Your task to perform on an android device: open a new tab in the chrome app Image 0: 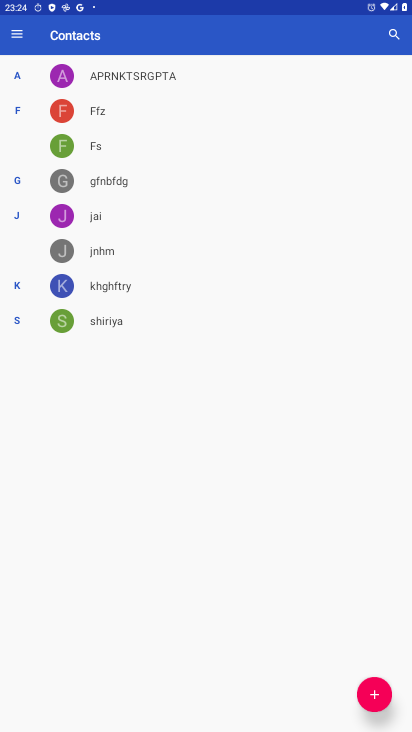
Step 0: press home button
Your task to perform on an android device: open a new tab in the chrome app Image 1: 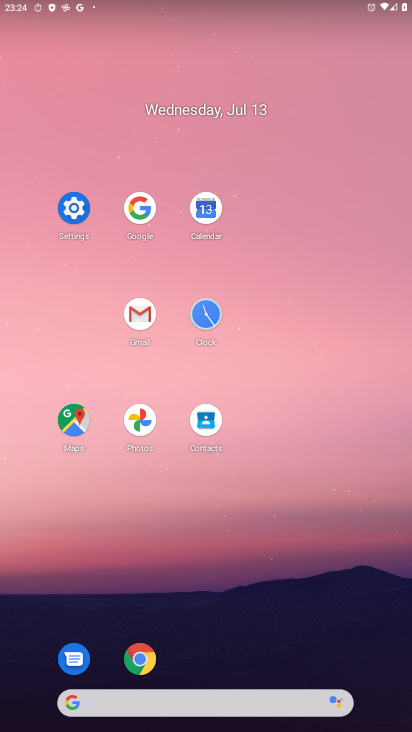
Step 1: click (126, 661)
Your task to perform on an android device: open a new tab in the chrome app Image 2: 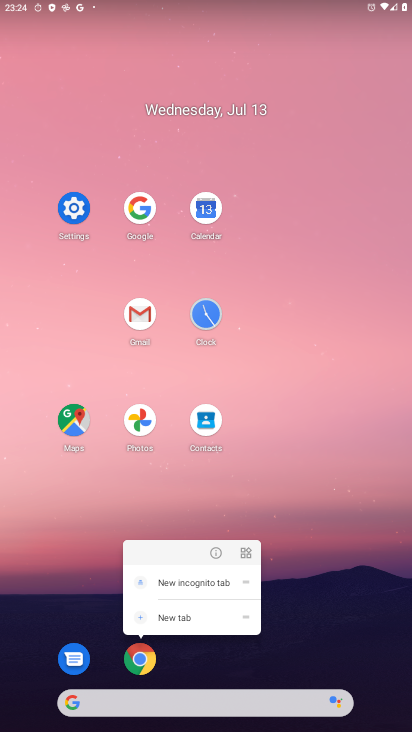
Step 2: click (144, 656)
Your task to perform on an android device: open a new tab in the chrome app Image 3: 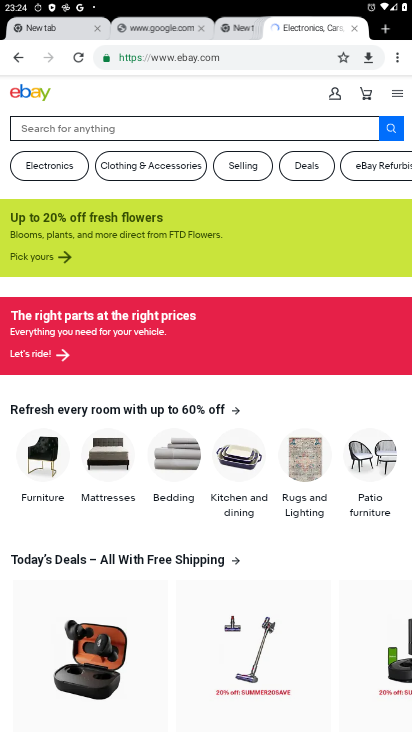
Step 3: click (382, 32)
Your task to perform on an android device: open a new tab in the chrome app Image 4: 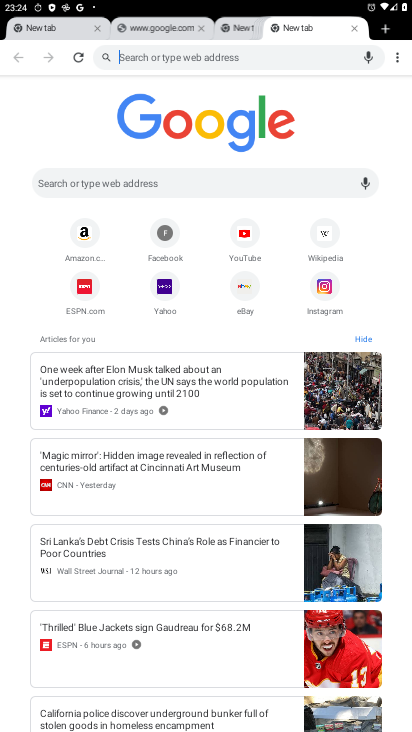
Step 4: task complete